Your task to perform on an android device: Search for bose soundsport free on walmart, select the first entry, and add it to the cart. Image 0: 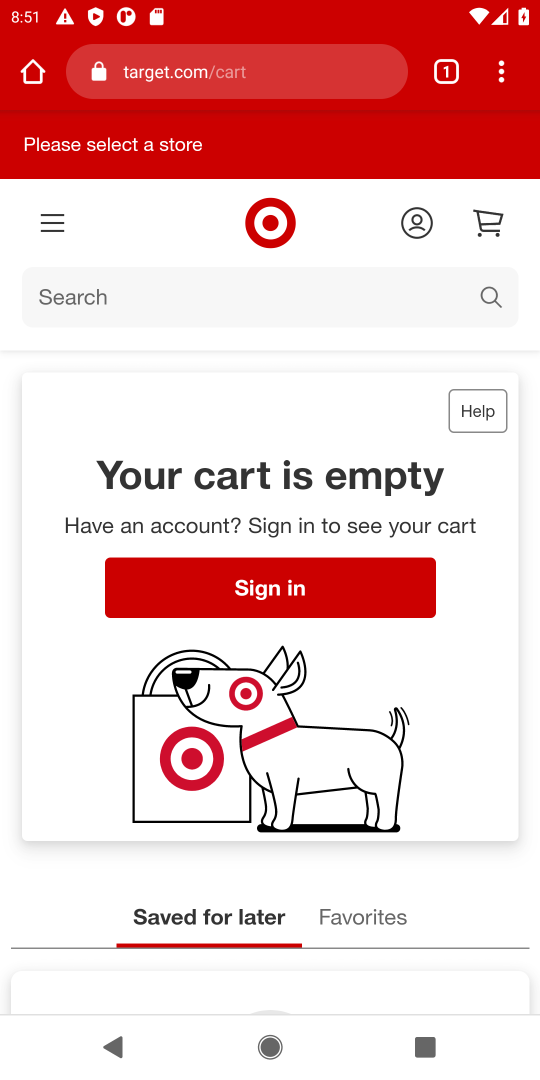
Step 0: press home button
Your task to perform on an android device: Search for bose soundsport free on walmart, select the first entry, and add it to the cart. Image 1: 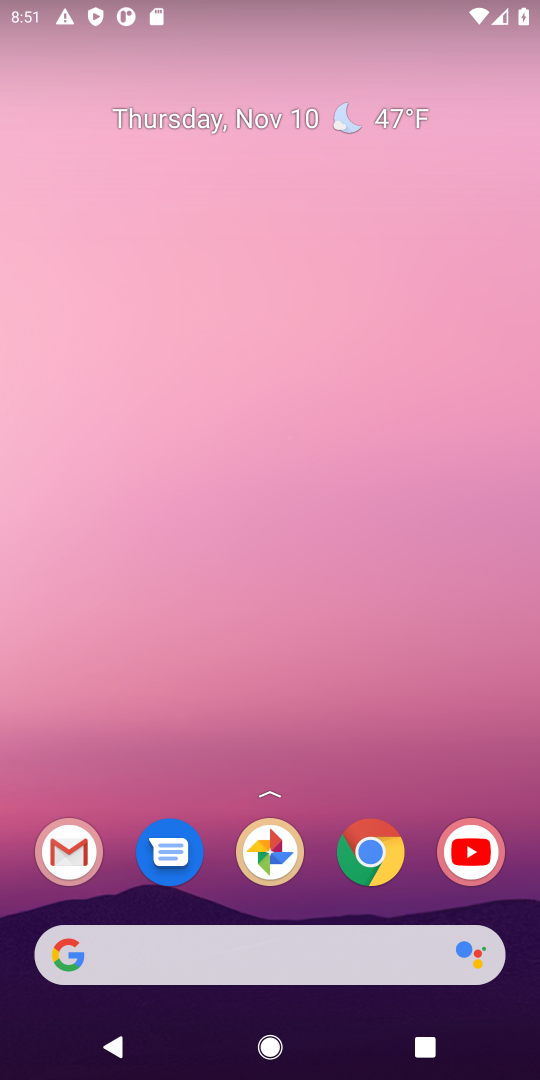
Step 1: click (371, 847)
Your task to perform on an android device: Search for bose soundsport free on walmart, select the first entry, and add it to the cart. Image 2: 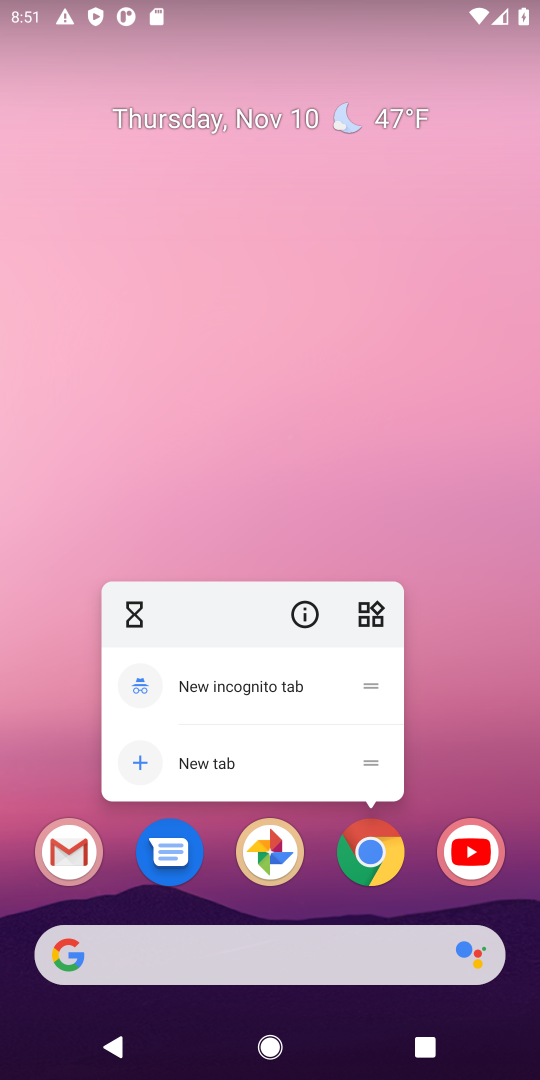
Step 2: click (369, 859)
Your task to perform on an android device: Search for bose soundsport free on walmart, select the first entry, and add it to the cart. Image 3: 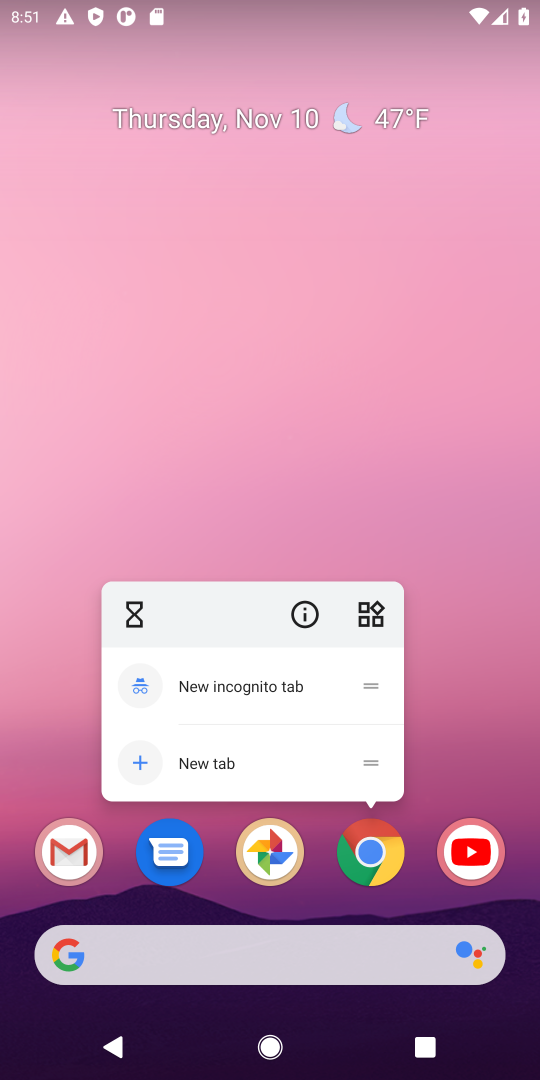
Step 3: click (367, 860)
Your task to perform on an android device: Search for bose soundsport free on walmart, select the first entry, and add it to the cart. Image 4: 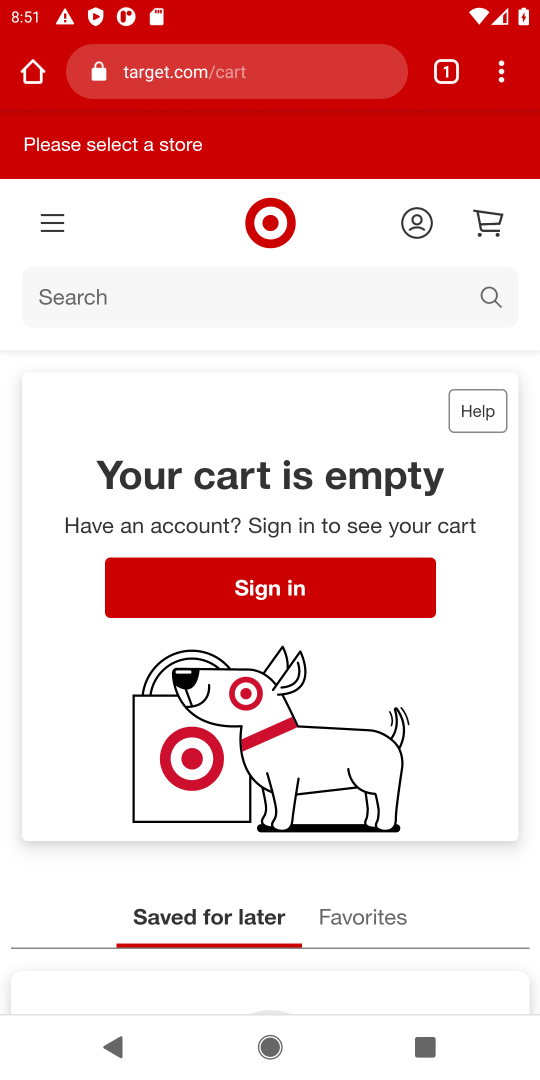
Step 4: click (270, 52)
Your task to perform on an android device: Search for bose soundsport free on walmart, select the first entry, and add it to the cart. Image 5: 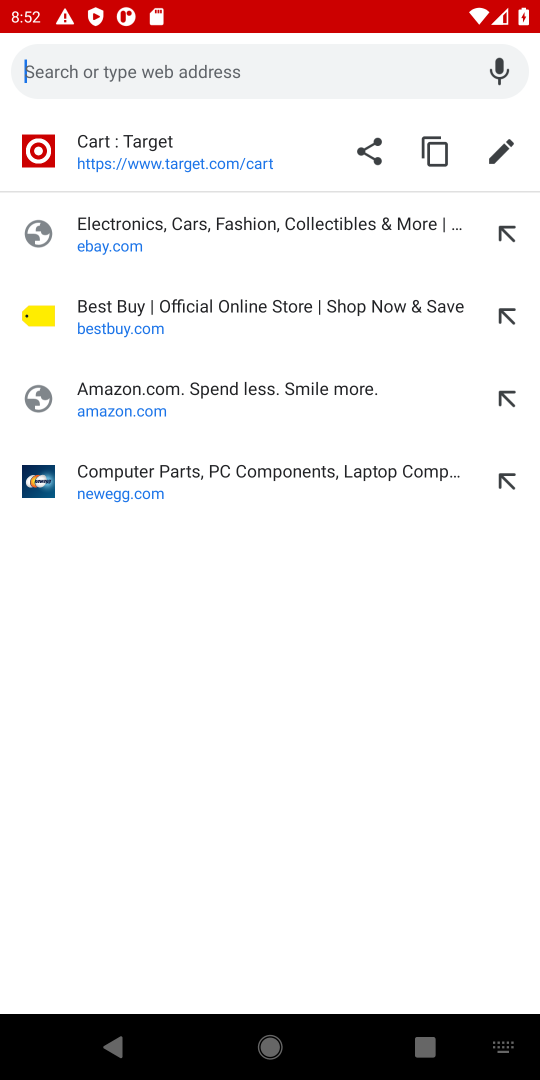
Step 5: type " walmart"
Your task to perform on an android device: Search for bose soundsport free on walmart, select the first entry, and add it to the cart. Image 6: 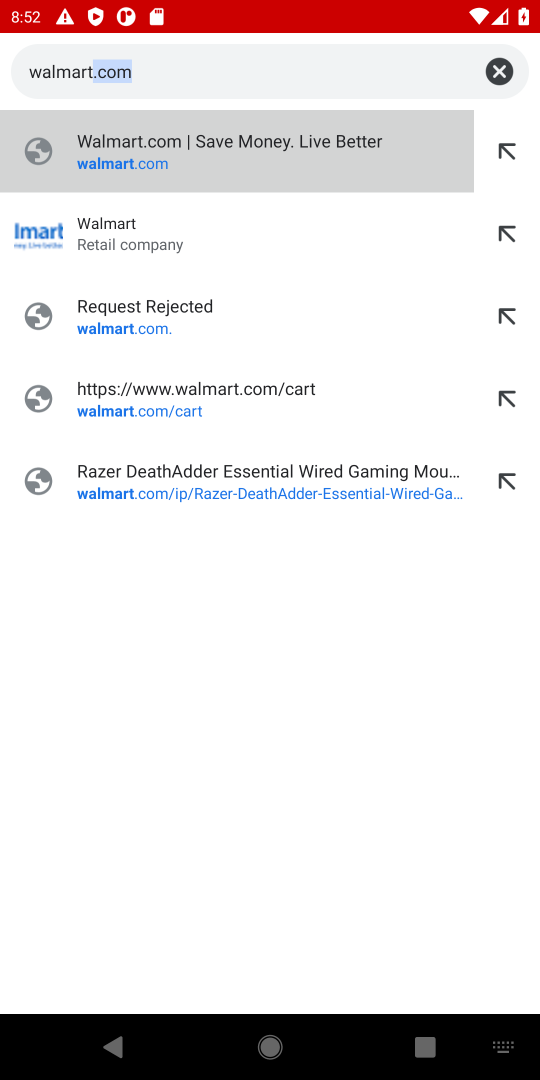
Step 6: press enter
Your task to perform on an android device: Search for bose soundsport free on walmart, select the first entry, and add it to the cart. Image 7: 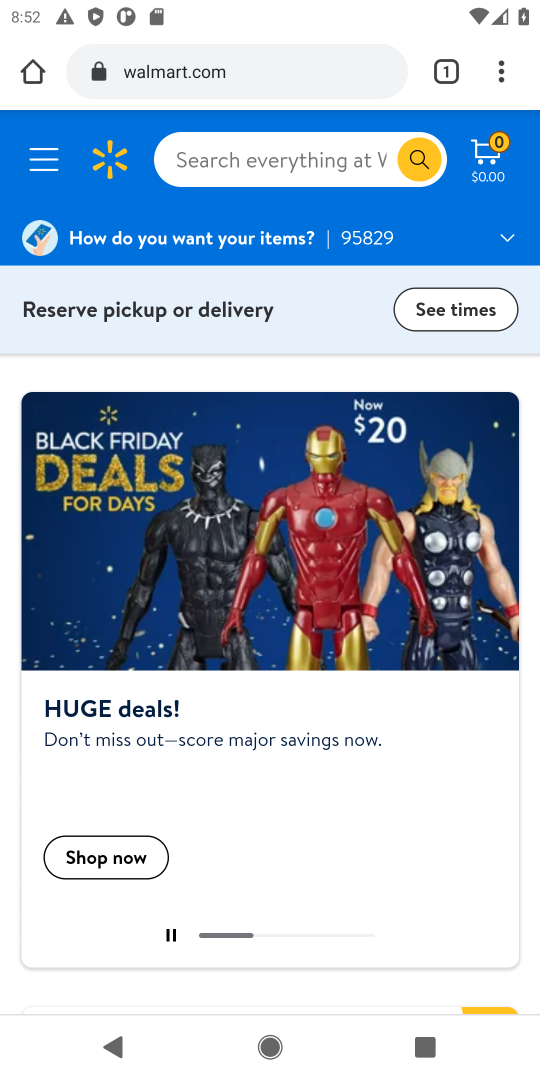
Step 7: click (255, 135)
Your task to perform on an android device: Search for bose soundsport free on walmart, select the first entry, and add it to the cart. Image 8: 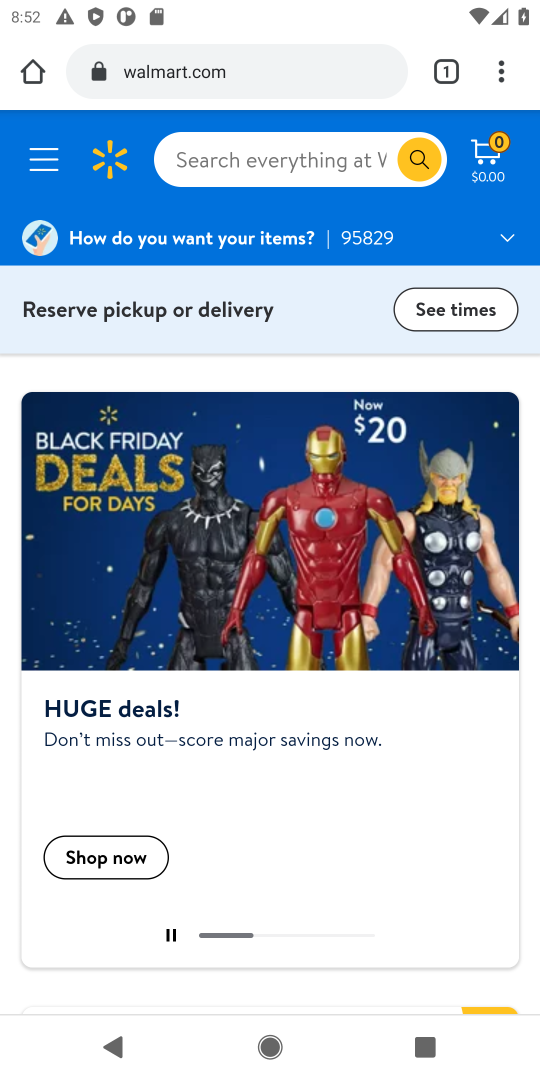
Step 8: click (252, 155)
Your task to perform on an android device: Search for bose soundsport free on walmart, select the first entry, and add it to the cart. Image 9: 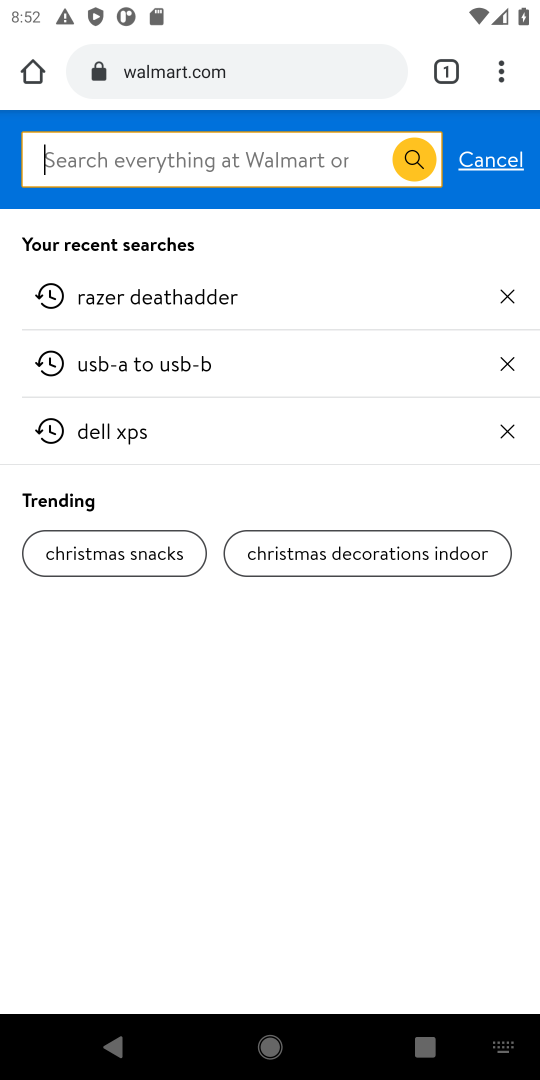
Step 9: type "bose soundsport free"
Your task to perform on an android device: Search for bose soundsport free on walmart, select the first entry, and add it to the cart. Image 10: 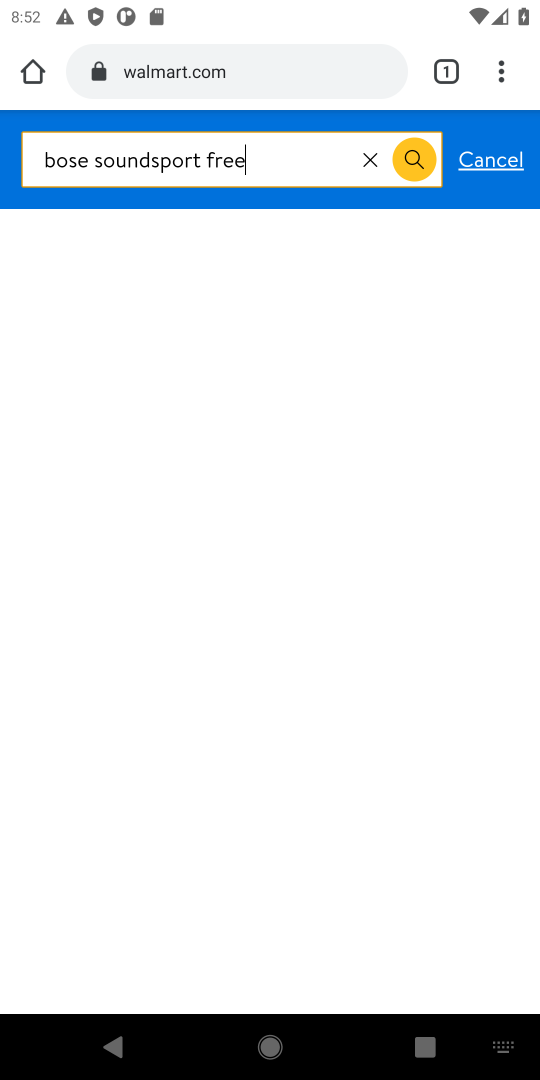
Step 10: press enter
Your task to perform on an android device: Search for bose soundsport free on walmart, select the first entry, and add it to the cart. Image 11: 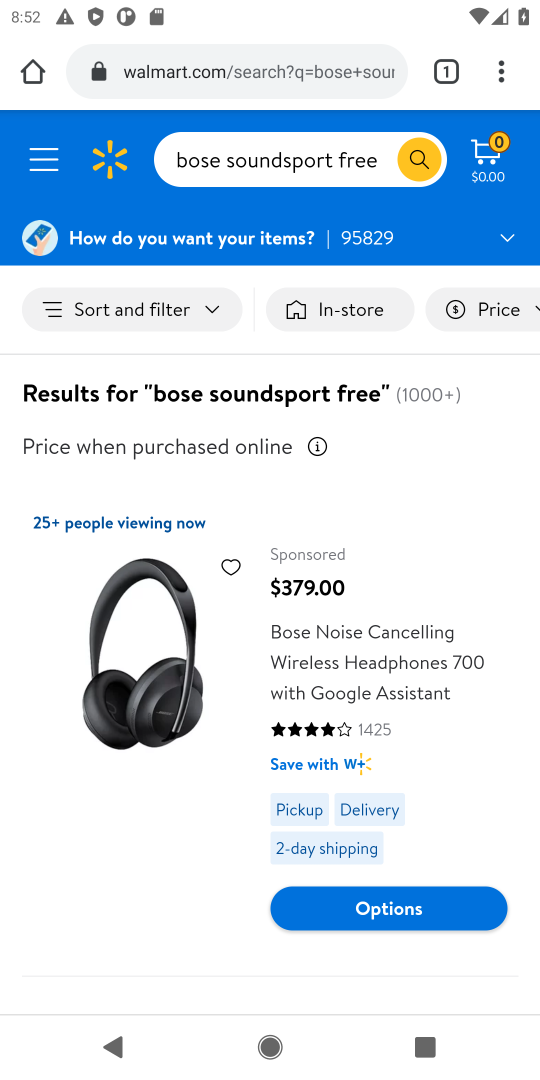
Step 11: task complete